Your task to perform on an android device: What is the recent news? Image 0: 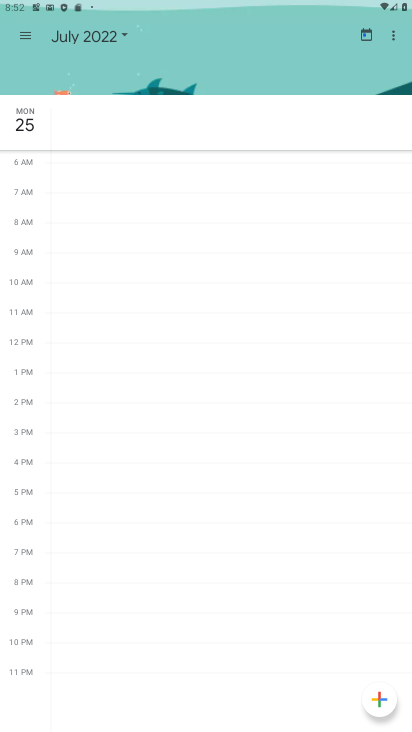
Step 0: press home button
Your task to perform on an android device: What is the recent news? Image 1: 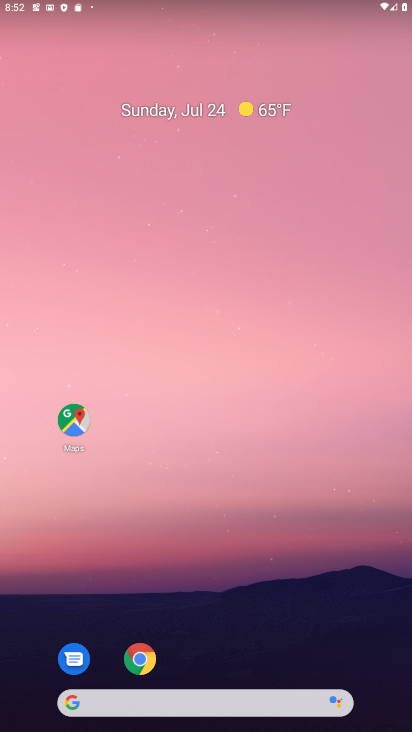
Step 1: click (130, 696)
Your task to perform on an android device: What is the recent news? Image 2: 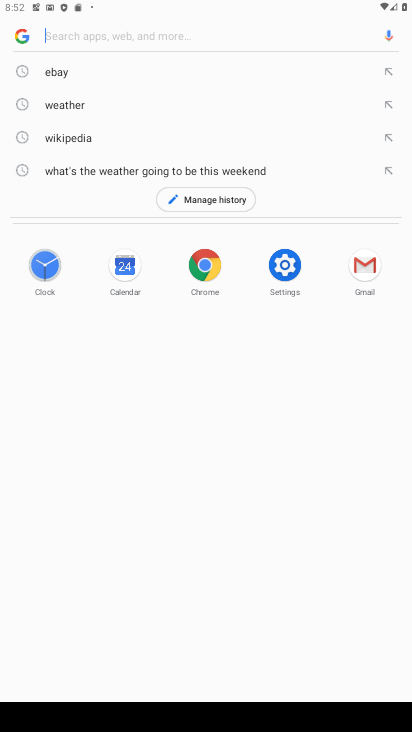
Step 2: click (84, 36)
Your task to perform on an android device: What is the recent news? Image 3: 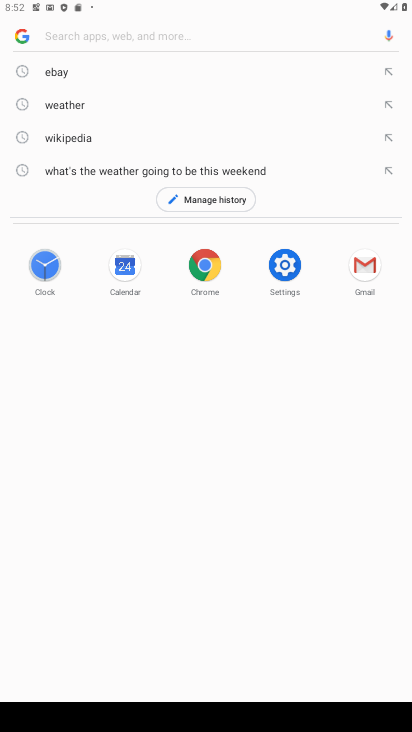
Step 3: type "recent news"
Your task to perform on an android device: What is the recent news? Image 4: 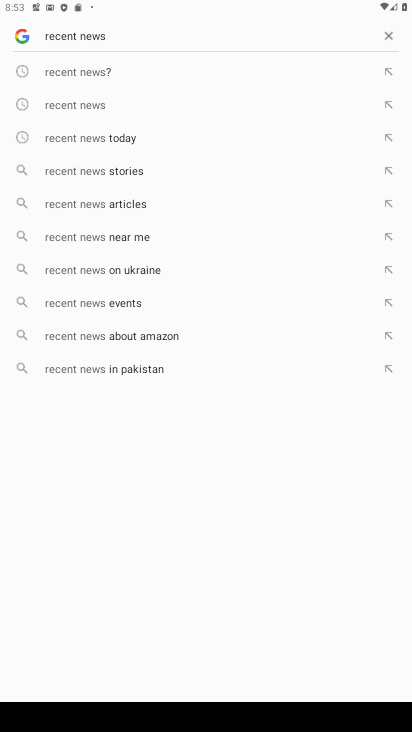
Step 4: click (73, 77)
Your task to perform on an android device: What is the recent news? Image 5: 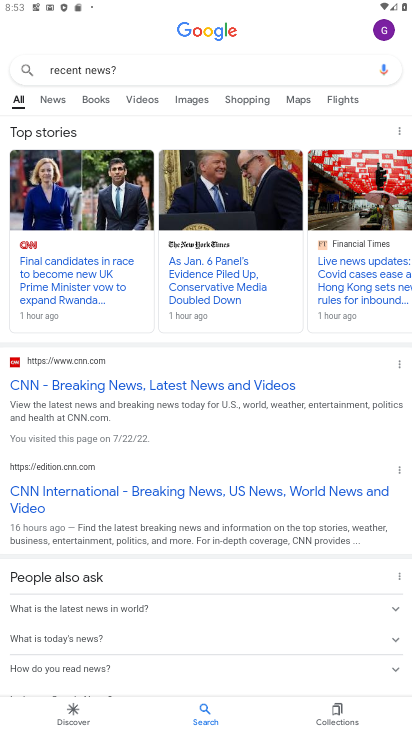
Step 5: click (55, 103)
Your task to perform on an android device: What is the recent news? Image 6: 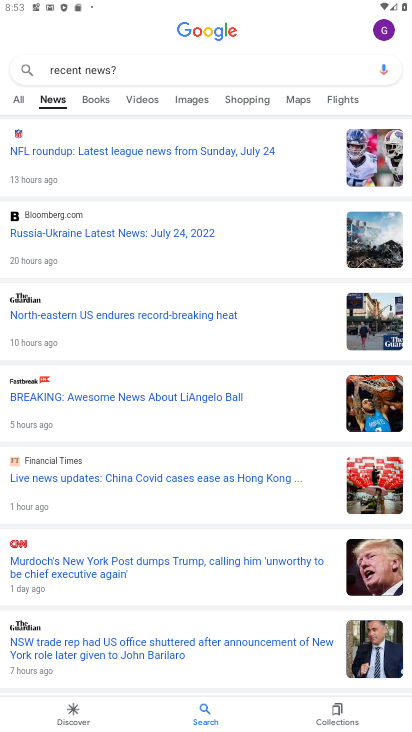
Step 6: drag from (196, 481) to (164, 200)
Your task to perform on an android device: What is the recent news? Image 7: 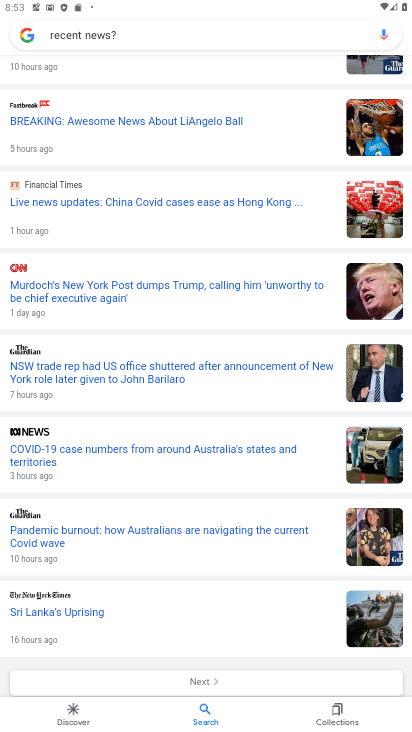
Step 7: drag from (187, 493) to (179, 202)
Your task to perform on an android device: What is the recent news? Image 8: 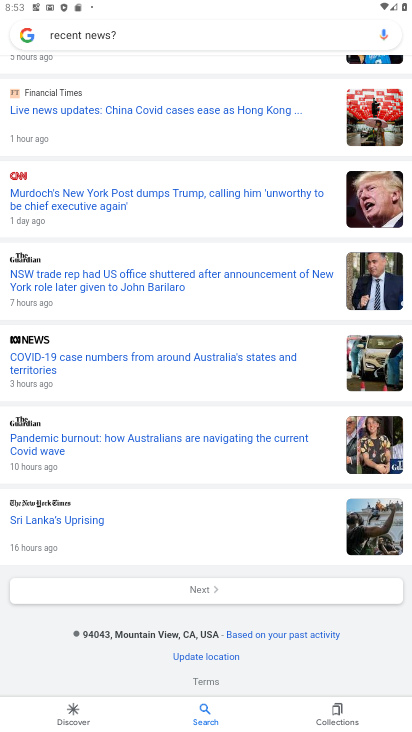
Step 8: drag from (178, 196) to (187, 564)
Your task to perform on an android device: What is the recent news? Image 9: 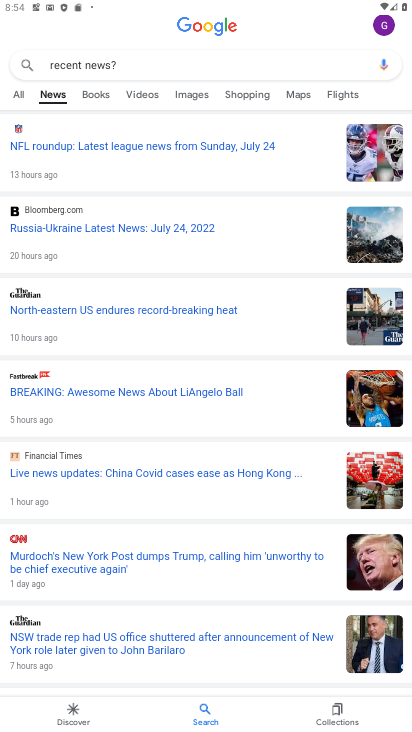
Step 9: click (78, 472)
Your task to perform on an android device: What is the recent news? Image 10: 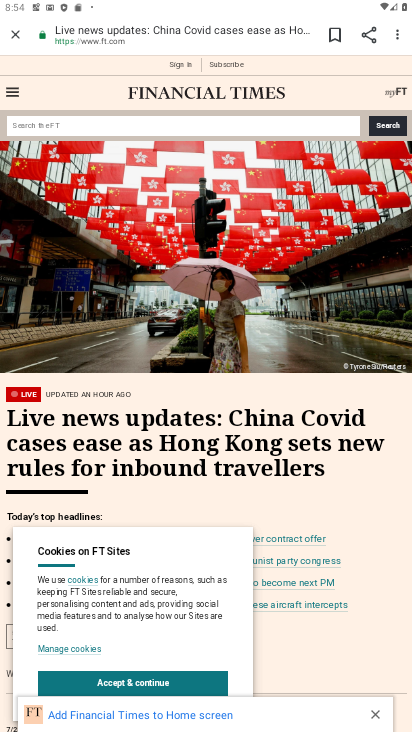
Step 10: task complete